Your task to perform on an android device: What's on my calendar tomorrow? Image 0: 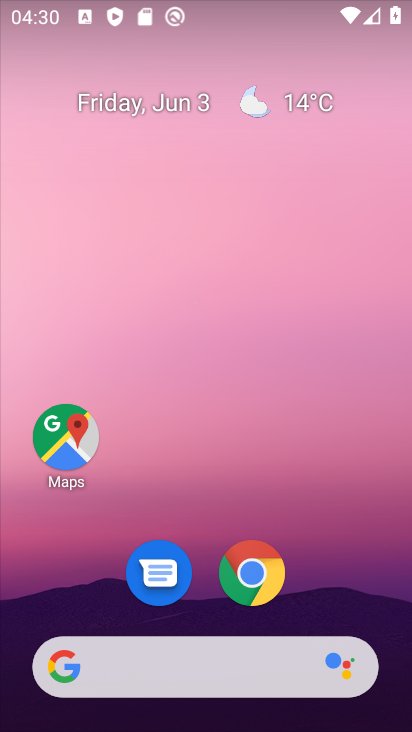
Step 0: drag from (313, 646) to (353, 10)
Your task to perform on an android device: What's on my calendar tomorrow? Image 1: 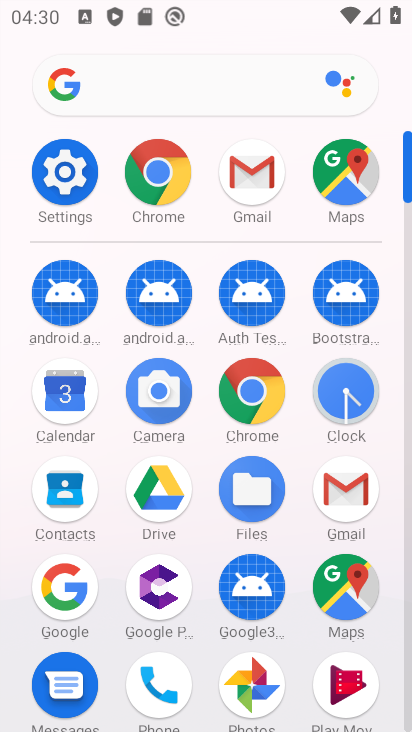
Step 1: click (67, 391)
Your task to perform on an android device: What's on my calendar tomorrow? Image 2: 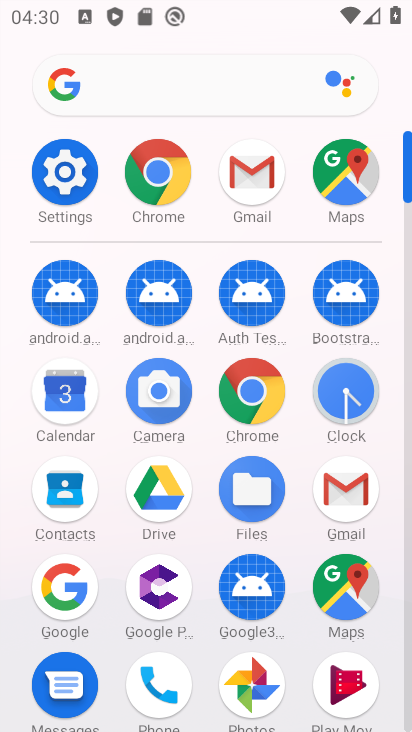
Step 2: click (68, 400)
Your task to perform on an android device: What's on my calendar tomorrow? Image 3: 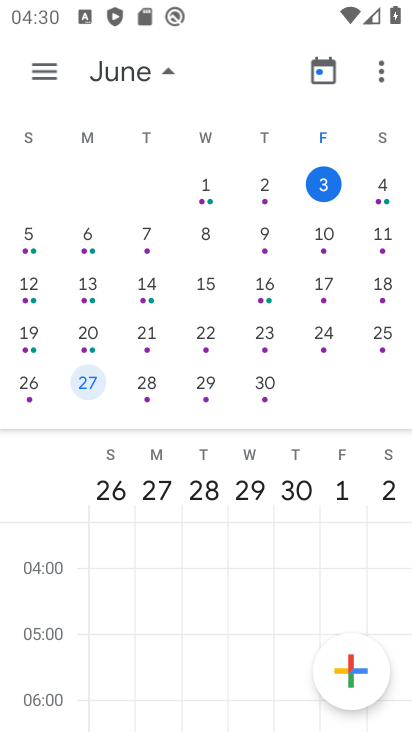
Step 3: click (383, 186)
Your task to perform on an android device: What's on my calendar tomorrow? Image 4: 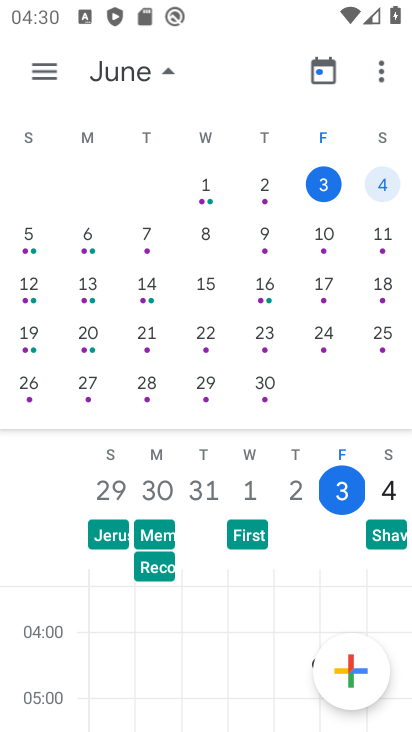
Step 4: task complete